Your task to perform on an android device: toggle javascript in the chrome app Image 0: 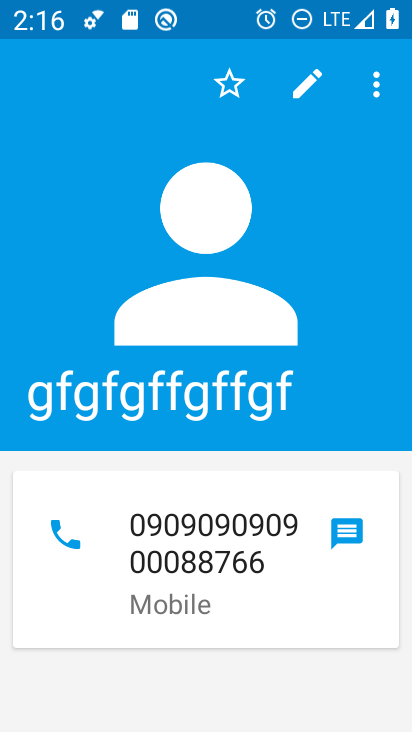
Step 0: press home button
Your task to perform on an android device: toggle javascript in the chrome app Image 1: 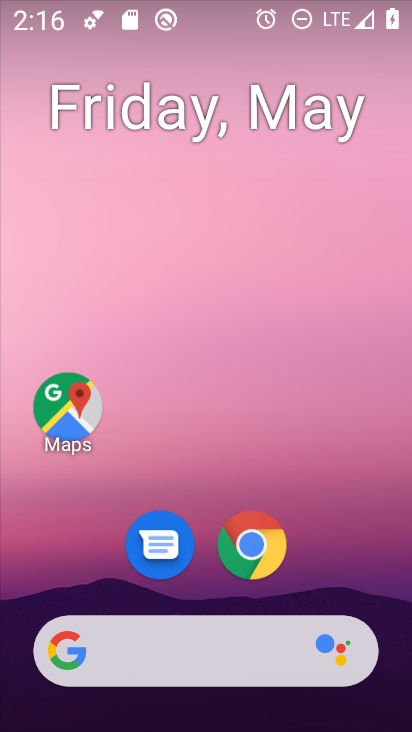
Step 1: drag from (327, 546) to (302, 305)
Your task to perform on an android device: toggle javascript in the chrome app Image 2: 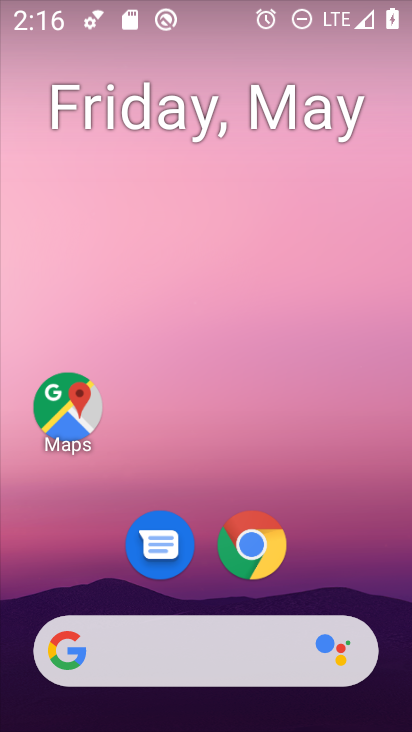
Step 2: drag from (317, 553) to (277, 221)
Your task to perform on an android device: toggle javascript in the chrome app Image 3: 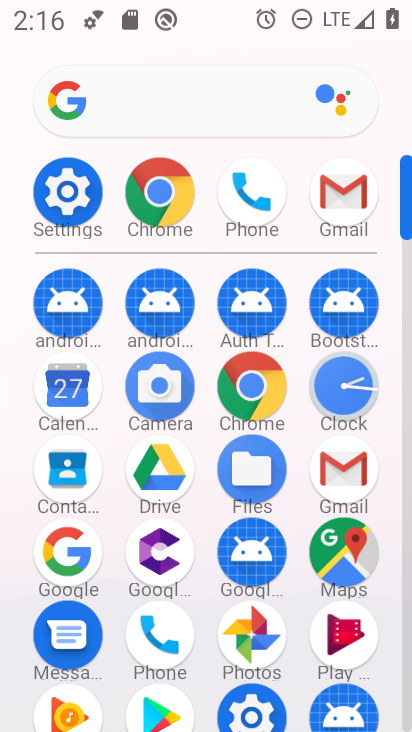
Step 3: click (36, 183)
Your task to perform on an android device: toggle javascript in the chrome app Image 4: 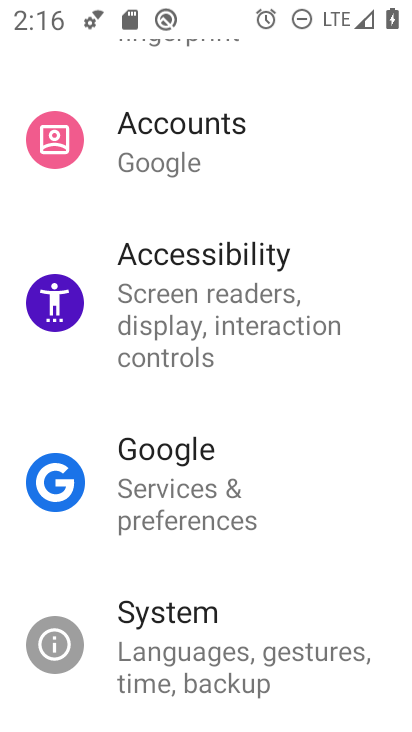
Step 4: drag from (278, 600) to (225, 102)
Your task to perform on an android device: toggle javascript in the chrome app Image 5: 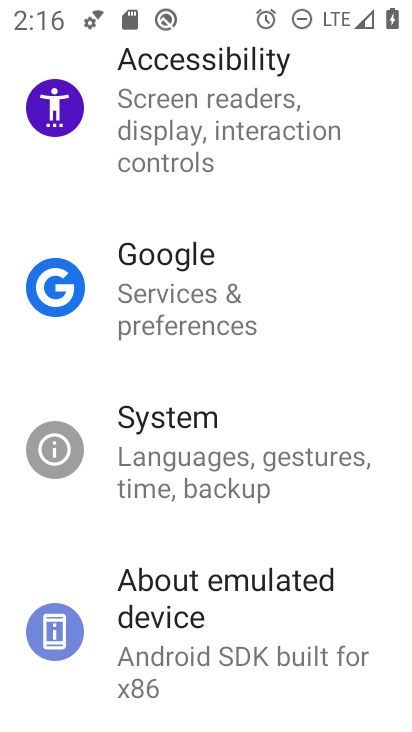
Step 5: press home button
Your task to perform on an android device: toggle javascript in the chrome app Image 6: 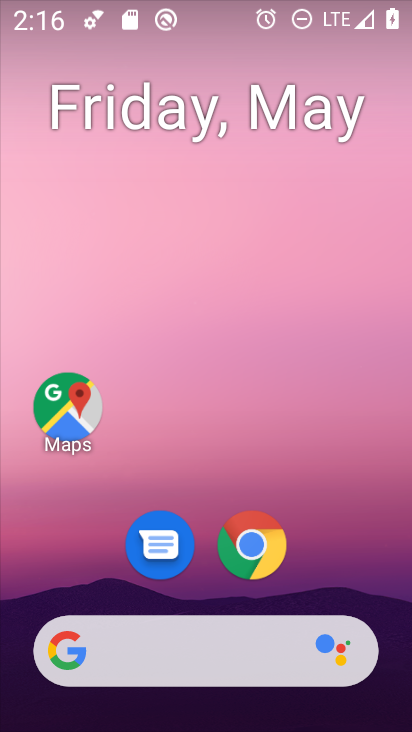
Step 6: click (260, 534)
Your task to perform on an android device: toggle javascript in the chrome app Image 7: 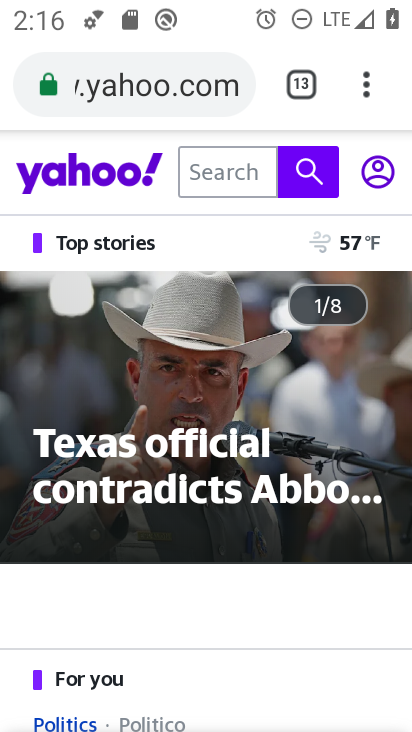
Step 7: click (367, 62)
Your task to perform on an android device: toggle javascript in the chrome app Image 8: 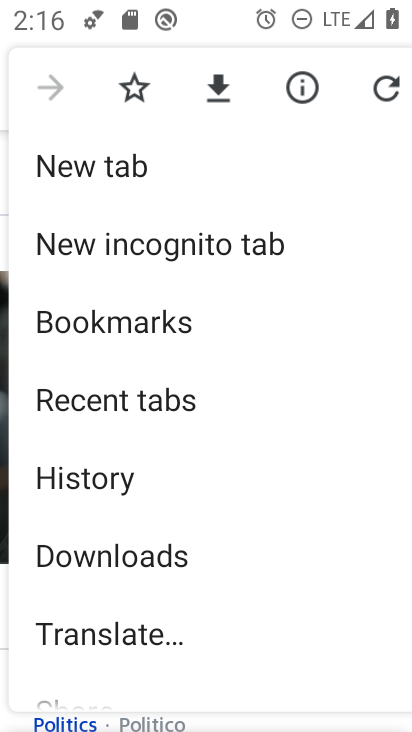
Step 8: drag from (219, 627) to (208, 171)
Your task to perform on an android device: toggle javascript in the chrome app Image 9: 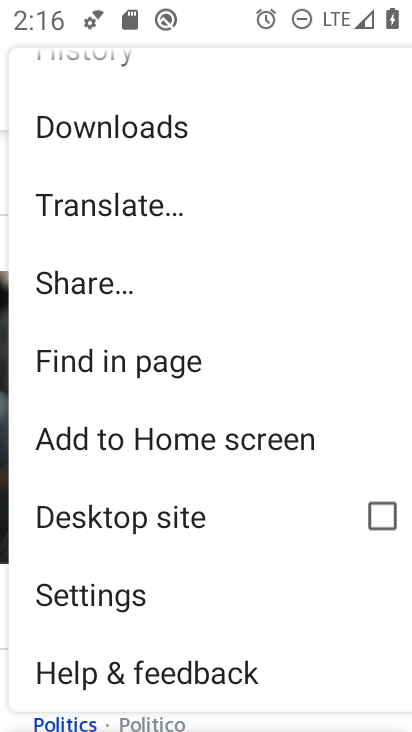
Step 9: click (177, 605)
Your task to perform on an android device: toggle javascript in the chrome app Image 10: 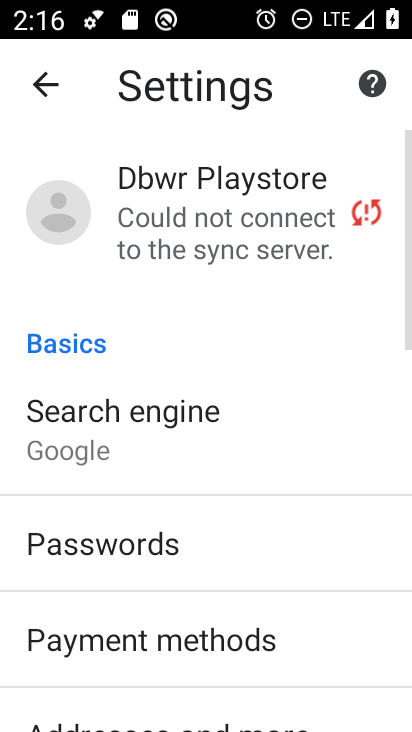
Step 10: drag from (208, 637) to (198, 342)
Your task to perform on an android device: toggle javascript in the chrome app Image 11: 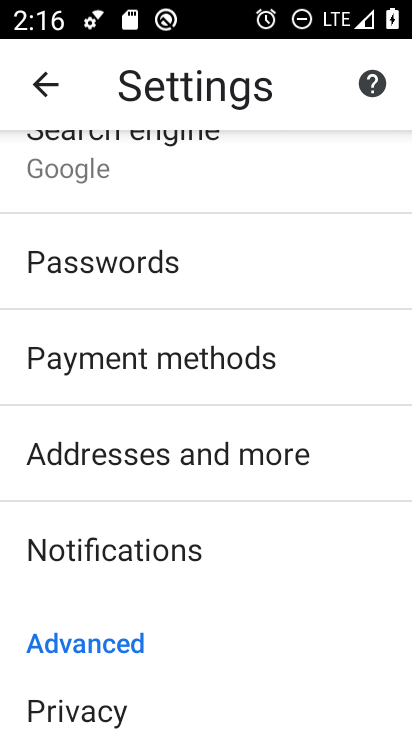
Step 11: drag from (185, 613) to (165, 285)
Your task to perform on an android device: toggle javascript in the chrome app Image 12: 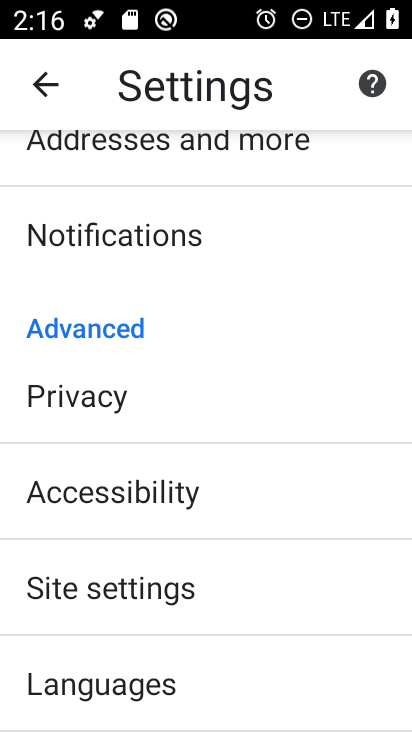
Step 12: click (177, 579)
Your task to perform on an android device: toggle javascript in the chrome app Image 13: 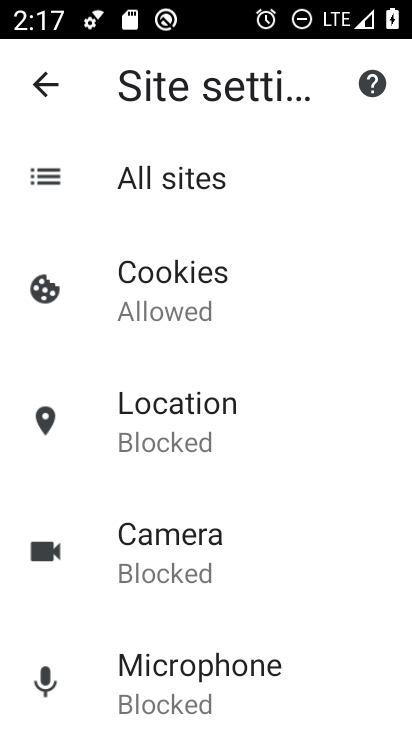
Step 13: drag from (234, 233) to (236, 164)
Your task to perform on an android device: toggle javascript in the chrome app Image 14: 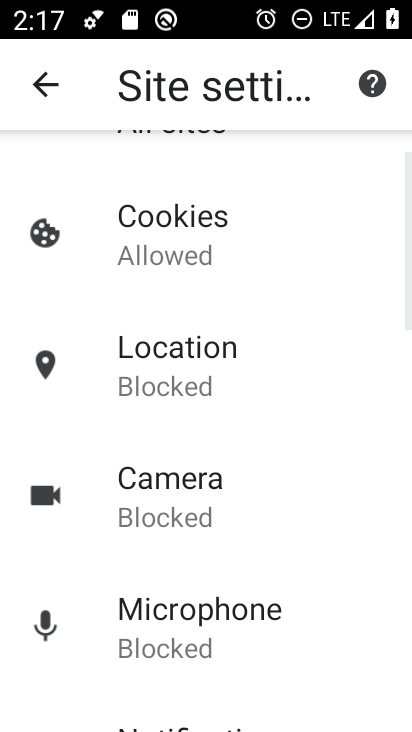
Step 14: drag from (214, 639) to (244, 254)
Your task to perform on an android device: toggle javascript in the chrome app Image 15: 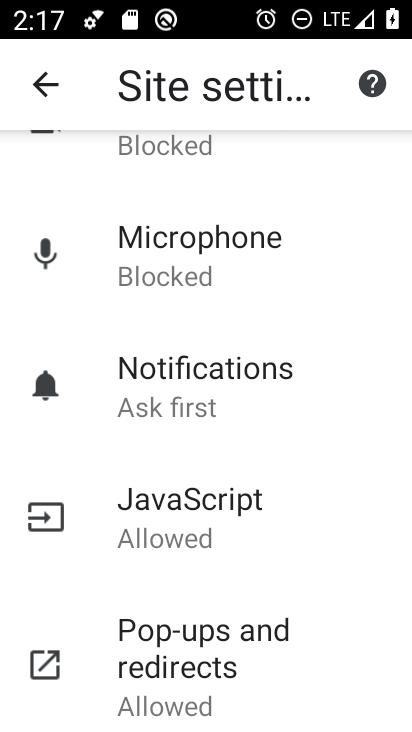
Step 15: click (194, 521)
Your task to perform on an android device: toggle javascript in the chrome app Image 16: 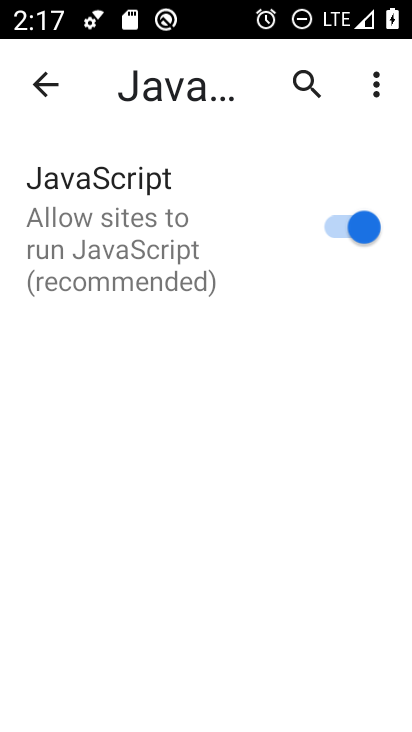
Step 16: task complete